Your task to perform on an android device: change the clock display to digital Image 0: 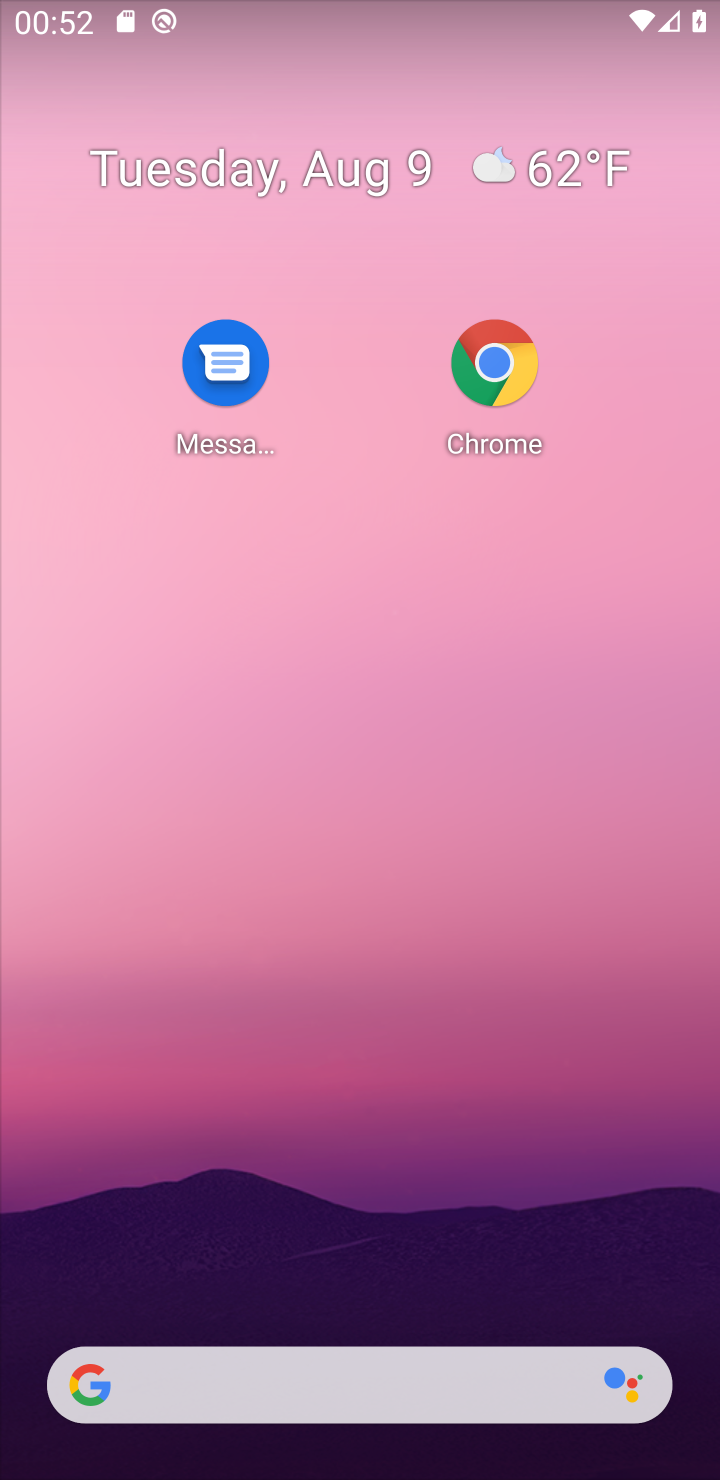
Step 0: drag from (318, 1295) to (349, 352)
Your task to perform on an android device: change the clock display to digital Image 1: 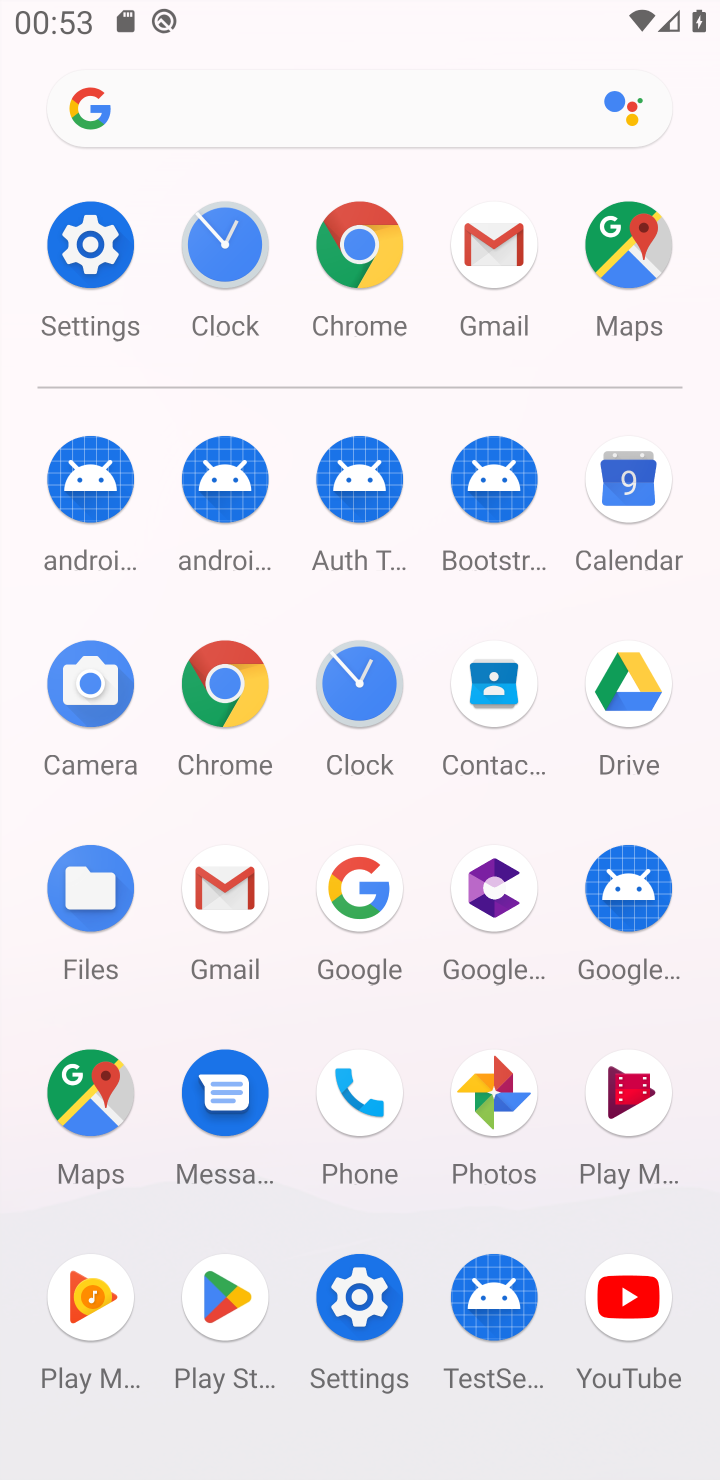
Step 1: click (357, 683)
Your task to perform on an android device: change the clock display to digital Image 2: 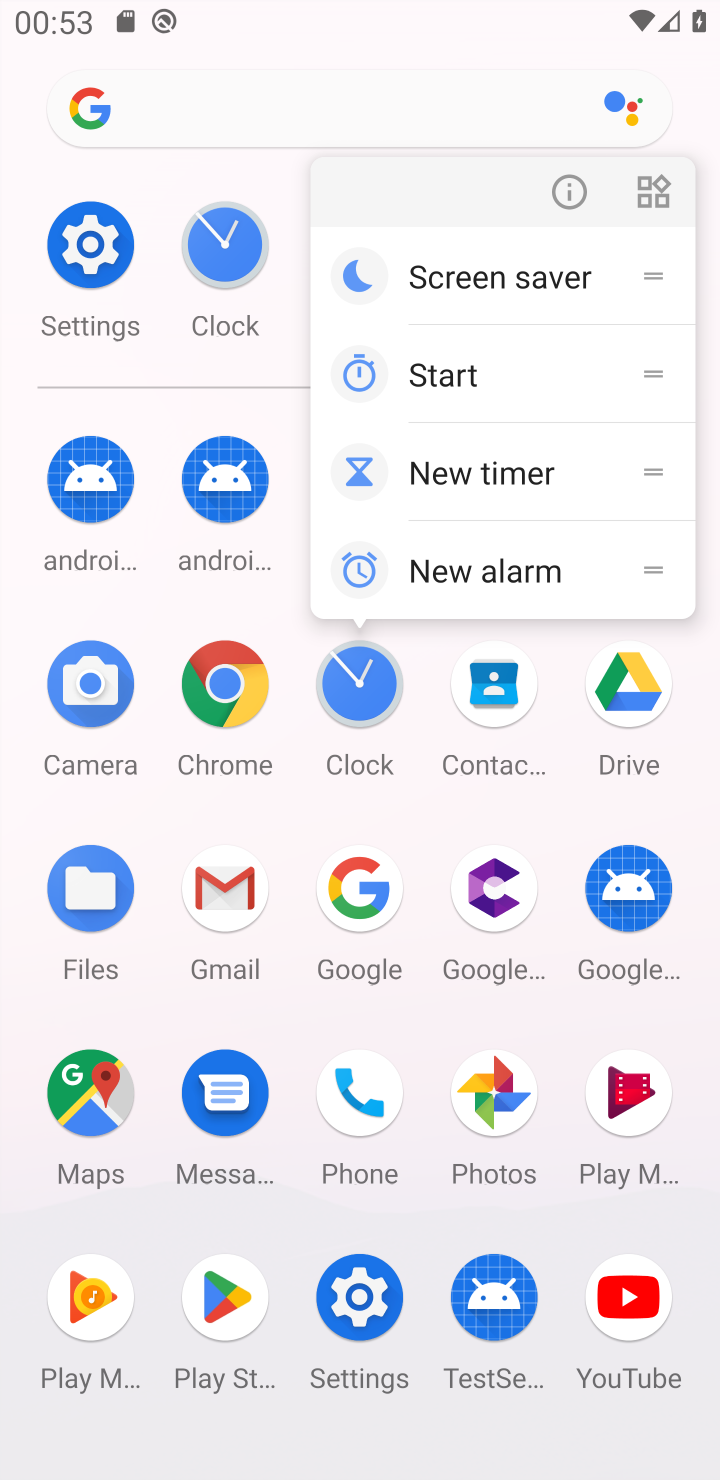
Step 2: click (357, 683)
Your task to perform on an android device: change the clock display to digital Image 3: 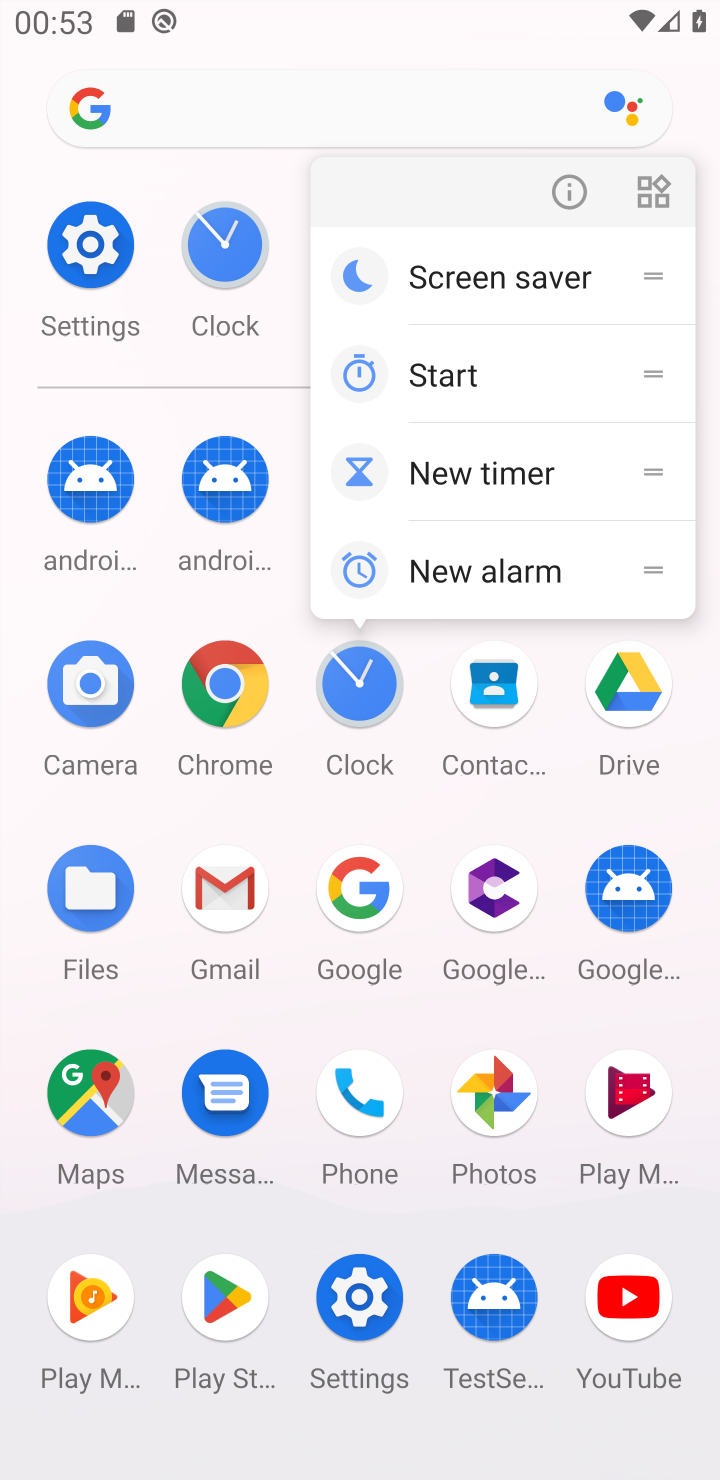
Step 3: click (357, 683)
Your task to perform on an android device: change the clock display to digital Image 4: 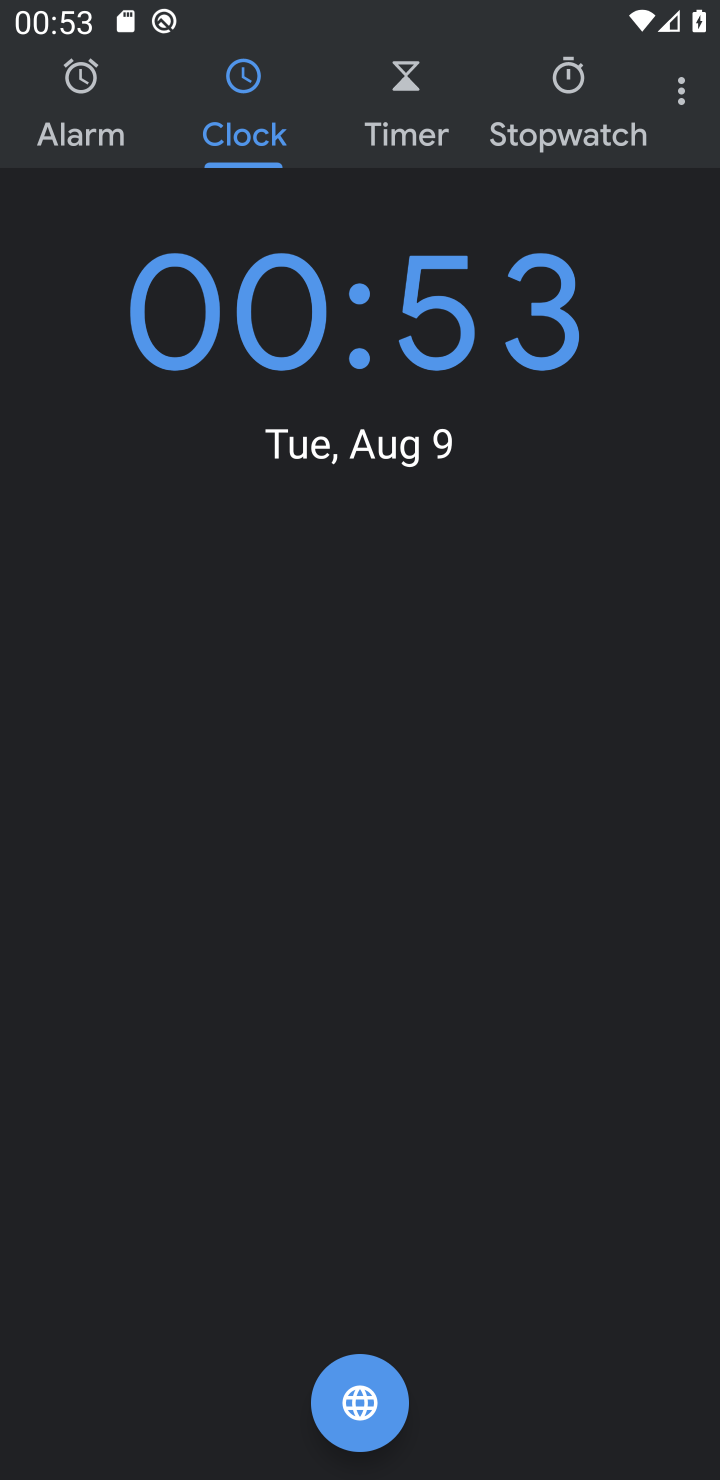
Step 4: click (681, 99)
Your task to perform on an android device: change the clock display to digital Image 5: 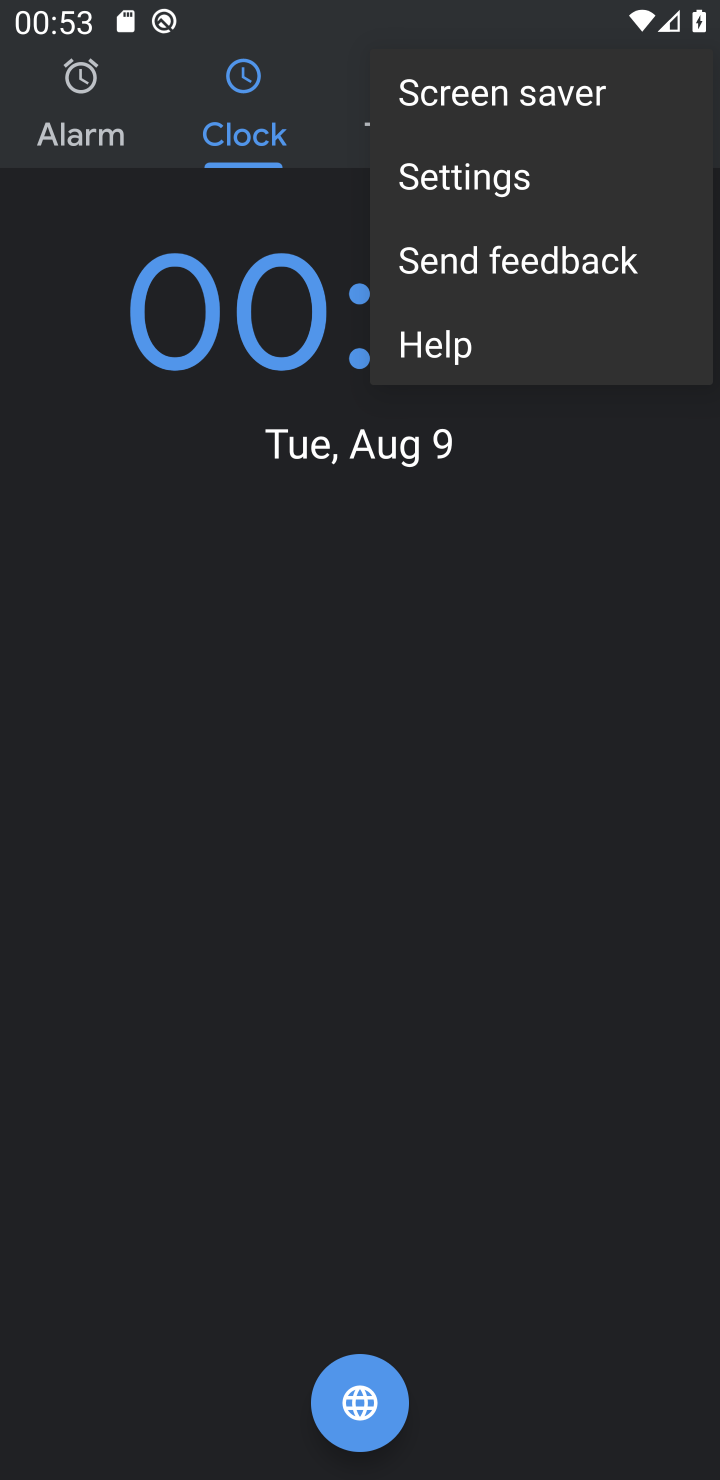
Step 5: click (543, 165)
Your task to perform on an android device: change the clock display to digital Image 6: 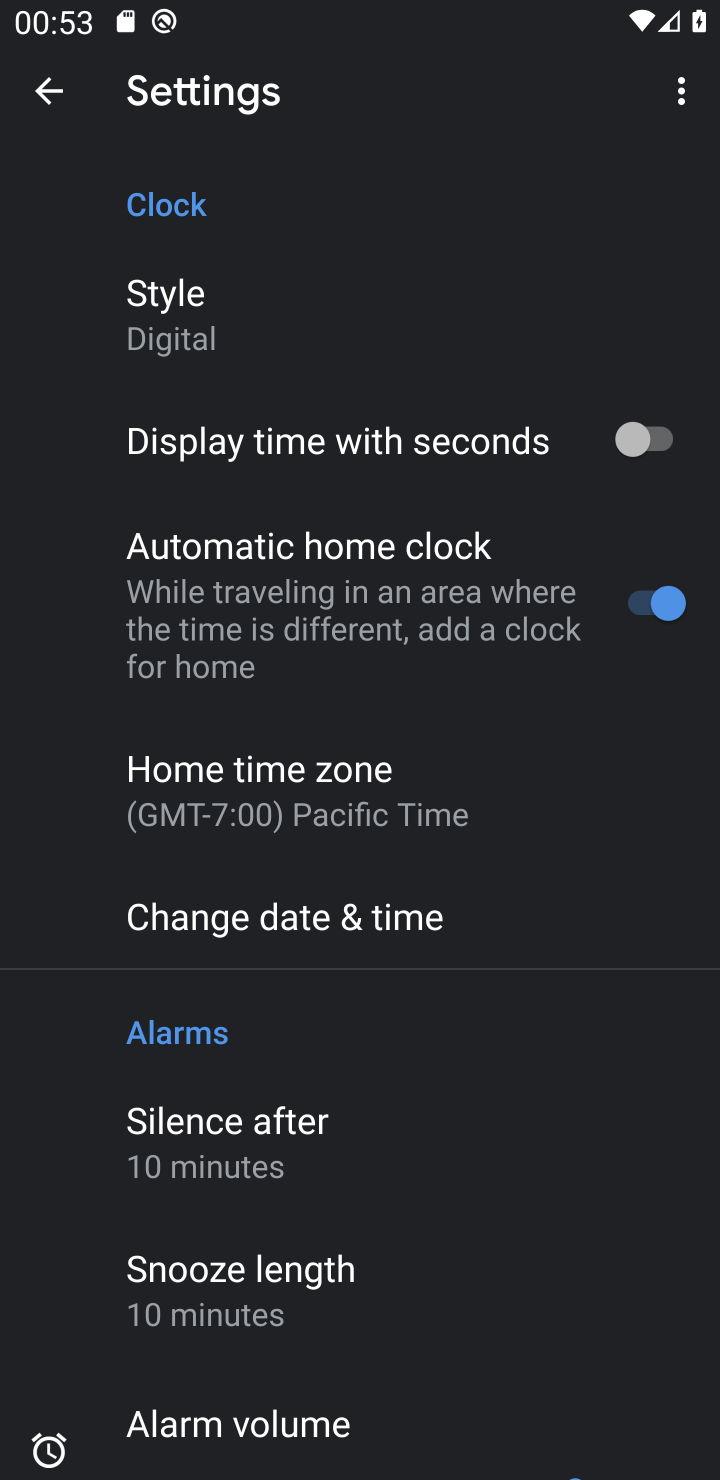
Step 6: click (217, 324)
Your task to perform on an android device: change the clock display to digital Image 7: 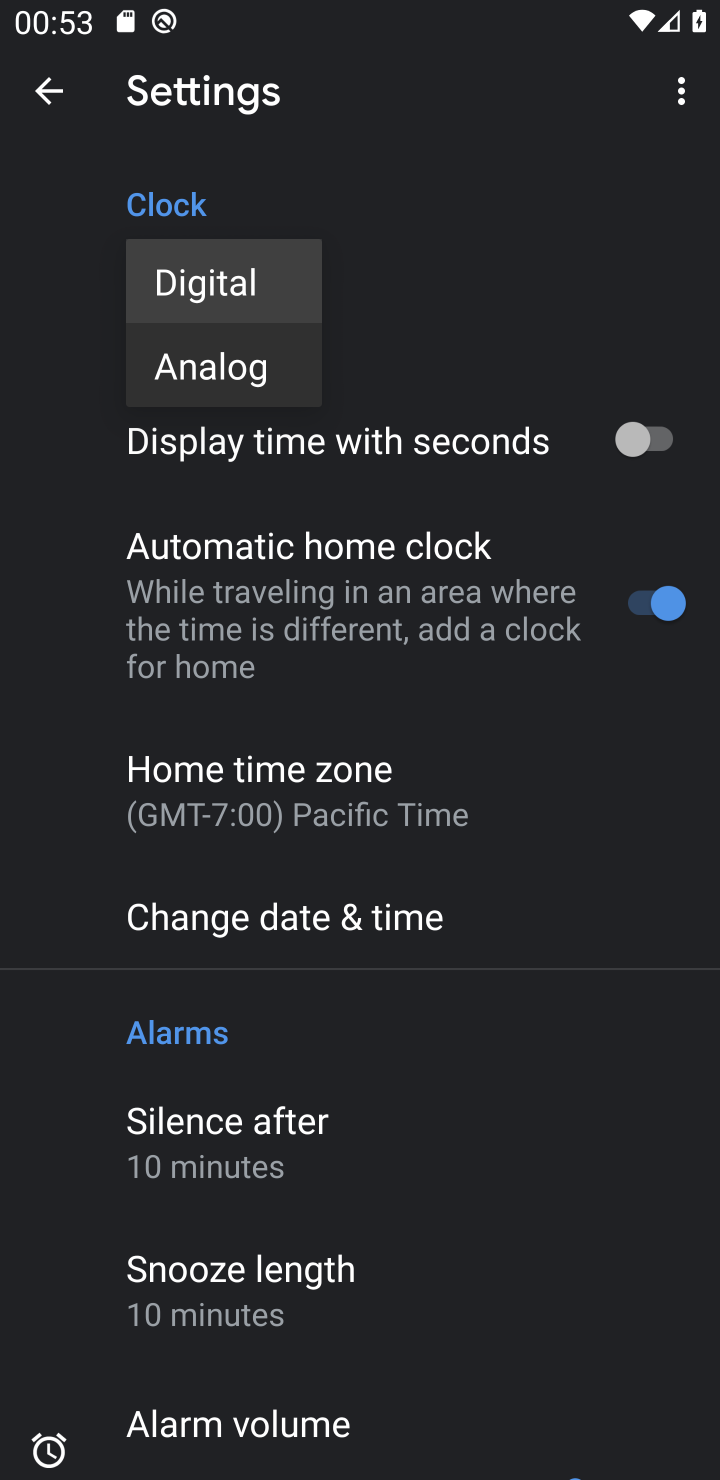
Step 7: click (232, 281)
Your task to perform on an android device: change the clock display to digital Image 8: 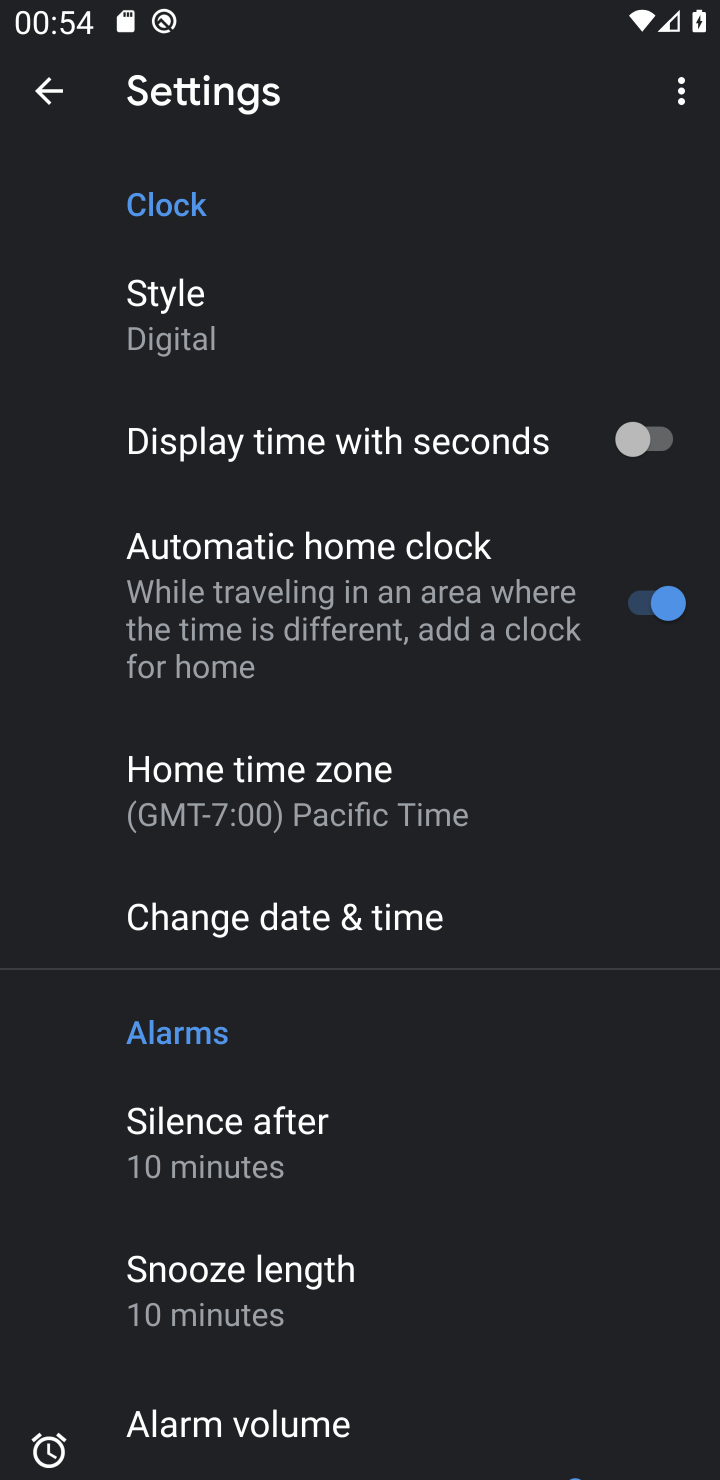
Step 8: task complete